Your task to perform on an android device: Open Google Chrome and click the shortcut for Amazon.com Image 0: 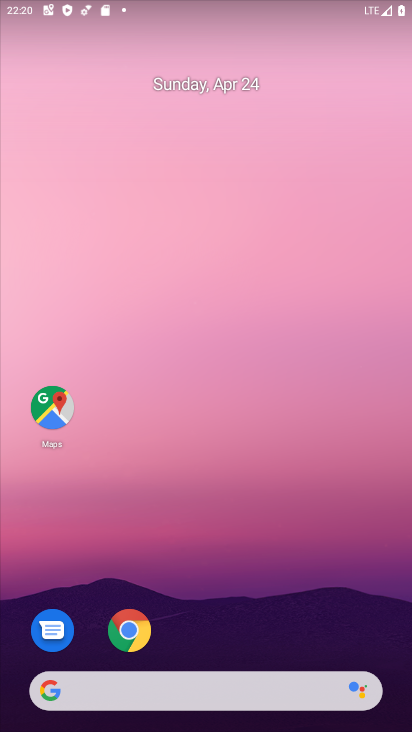
Step 0: click (137, 629)
Your task to perform on an android device: Open Google Chrome and click the shortcut for Amazon.com Image 1: 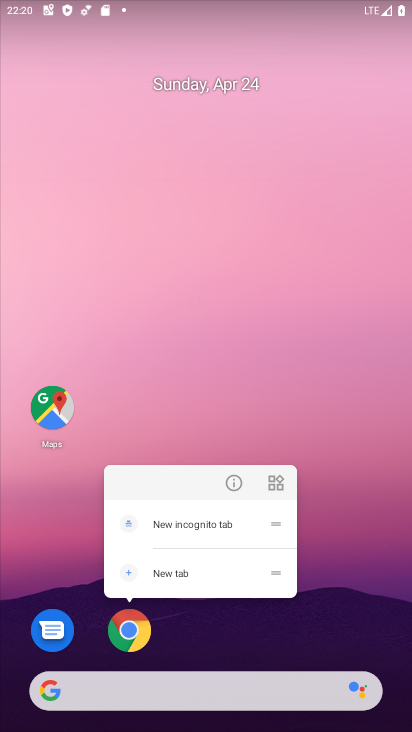
Step 1: click (136, 632)
Your task to perform on an android device: Open Google Chrome and click the shortcut for Amazon.com Image 2: 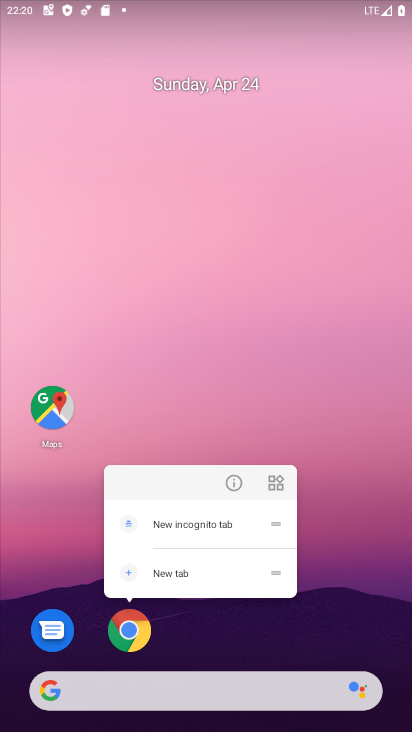
Step 2: click (136, 642)
Your task to perform on an android device: Open Google Chrome and click the shortcut for Amazon.com Image 3: 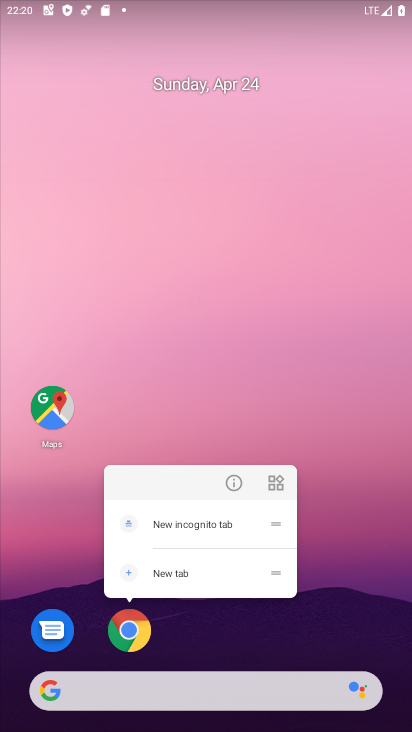
Step 3: click (118, 608)
Your task to perform on an android device: Open Google Chrome and click the shortcut for Amazon.com Image 4: 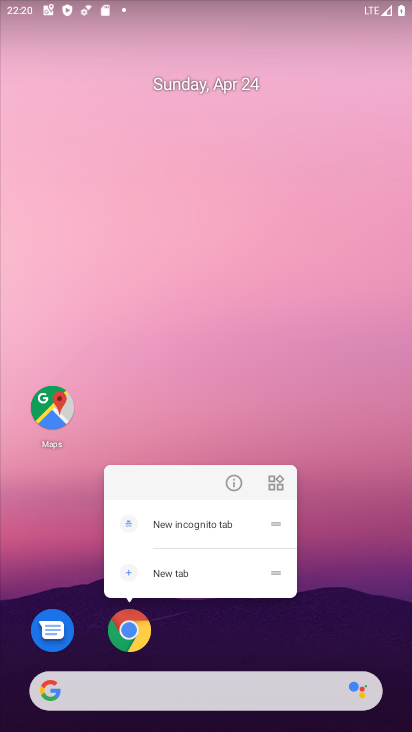
Step 4: click (126, 638)
Your task to perform on an android device: Open Google Chrome and click the shortcut for Amazon.com Image 5: 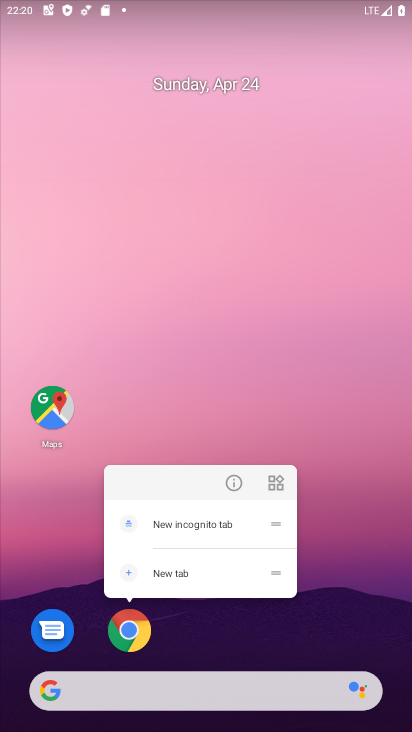
Step 5: click (130, 635)
Your task to perform on an android device: Open Google Chrome and click the shortcut for Amazon.com Image 6: 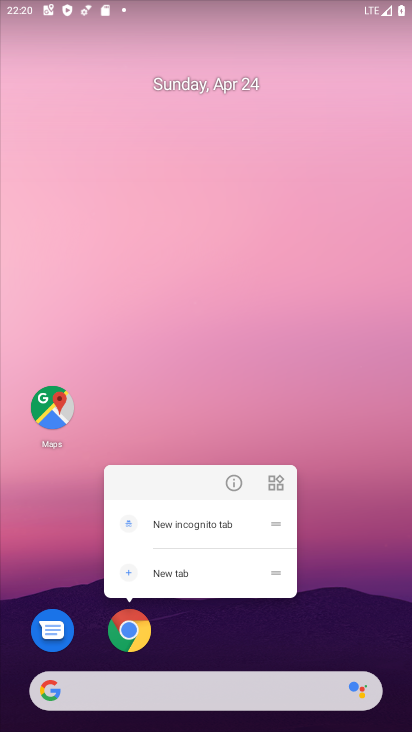
Step 6: click (145, 633)
Your task to perform on an android device: Open Google Chrome and click the shortcut for Amazon.com Image 7: 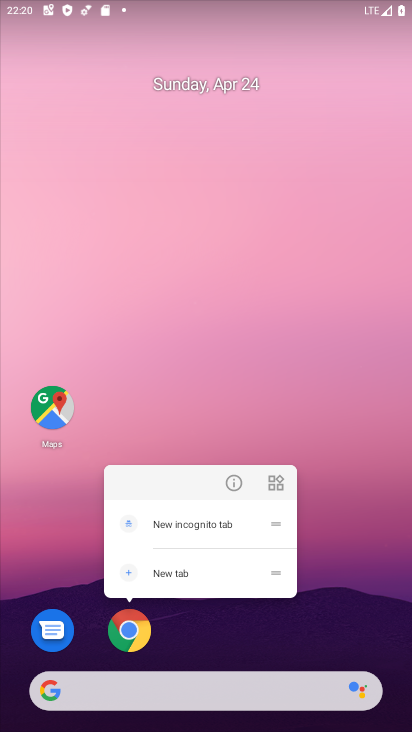
Step 7: drag from (266, 689) to (407, 49)
Your task to perform on an android device: Open Google Chrome and click the shortcut for Amazon.com Image 8: 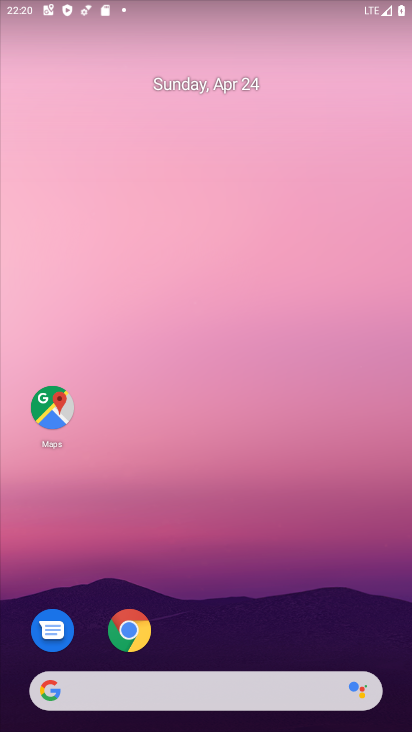
Step 8: drag from (221, 669) to (347, 9)
Your task to perform on an android device: Open Google Chrome and click the shortcut for Amazon.com Image 9: 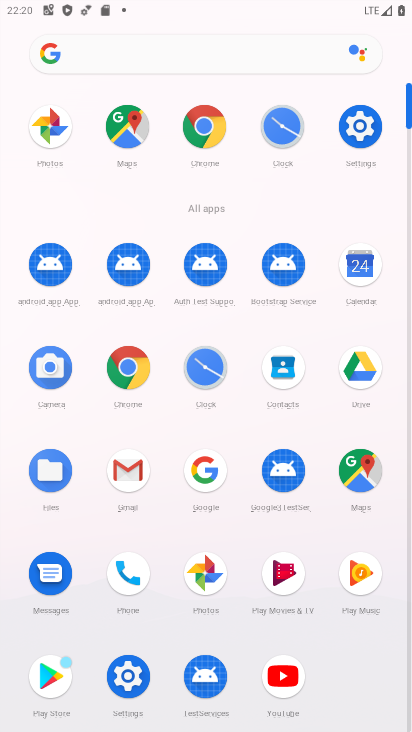
Step 9: click (212, 121)
Your task to perform on an android device: Open Google Chrome and click the shortcut for Amazon.com Image 10: 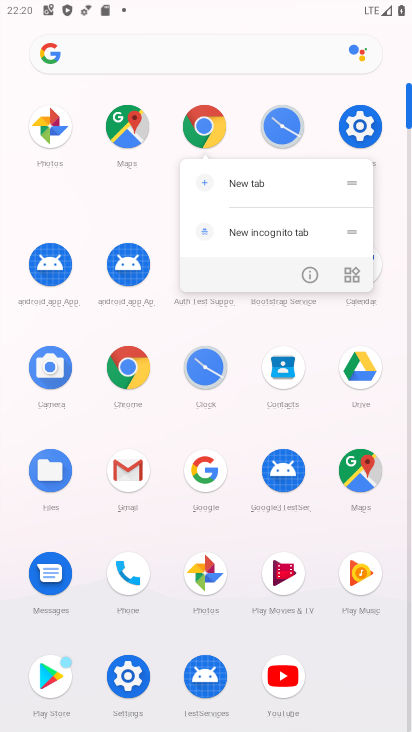
Step 10: click (206, 126)
Your task to perform on an android device: Open Google Chrome and click the shortcut for Amazon.com Image 11: 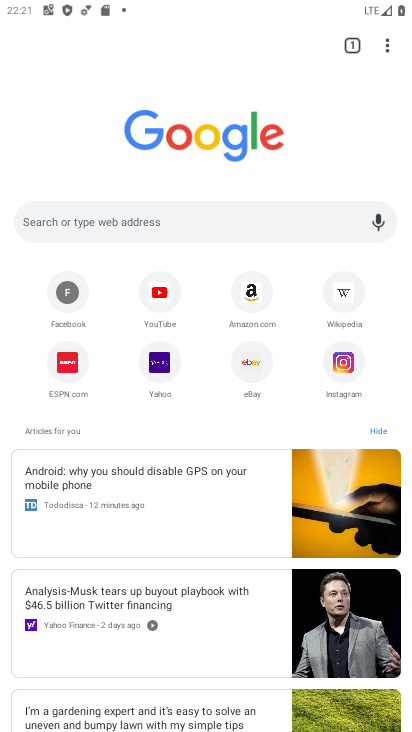
Step 11: click (247, 298)
Your task to perform on an android device: Open Google Chrome and click the shortcut for Amazon.com Image 12: 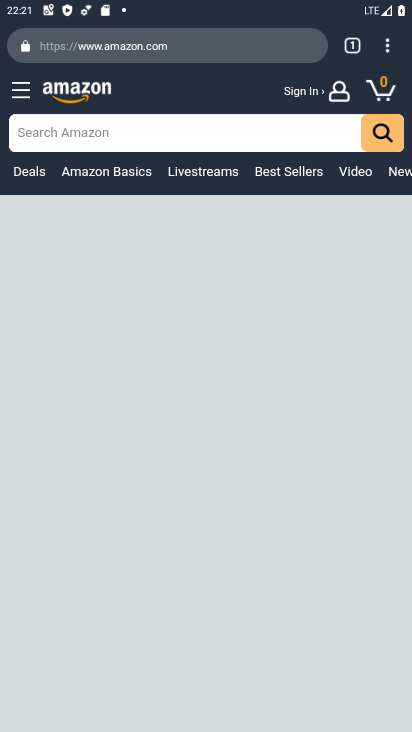
Step 12: task complete